Your task to perform on an android device: turn on data saver in the chrome app Image 0: 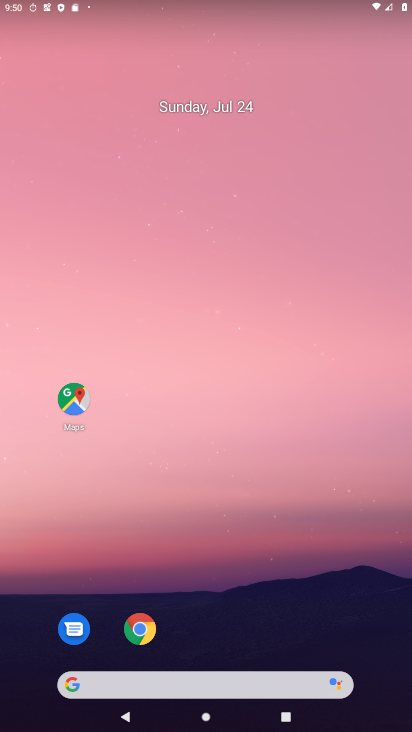
Step 0: drag from (184, 683) to (180, 97)
Your task to perform on an android device: turn on data saver in the chrome app Image 1: 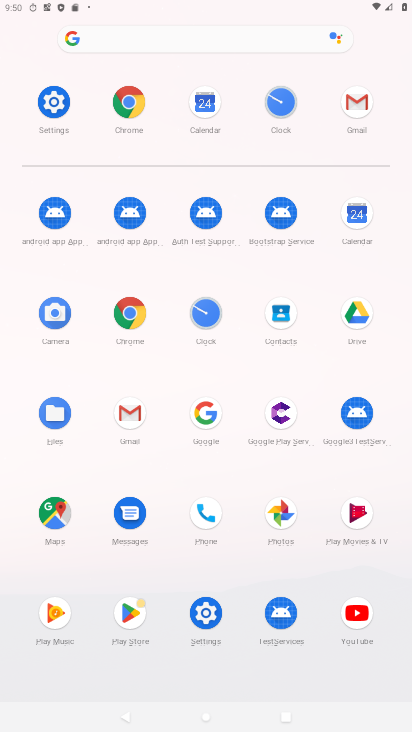
Step 1: click (128, 119)
Your task to perform on an android device: turn on data saver in the chrome app Image 2: 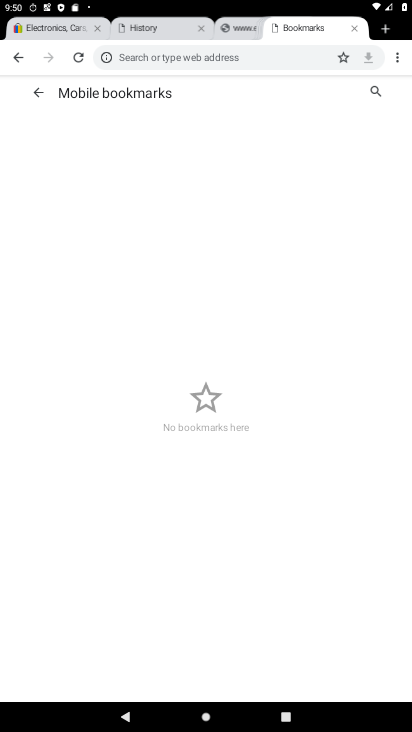
Step 2: click (401, 59)
Your task to perform on an android device: turn on data saver in the chrome app Image 3: 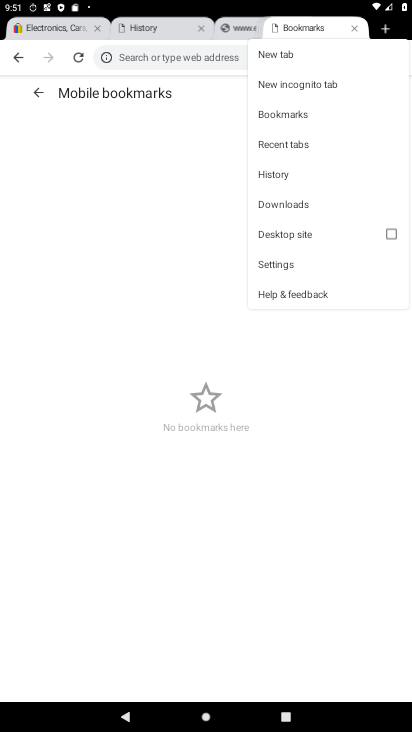
Step 3: click (287, 259)
Your task to perform on an android device: turn on data saver in the chrome app Image 4: 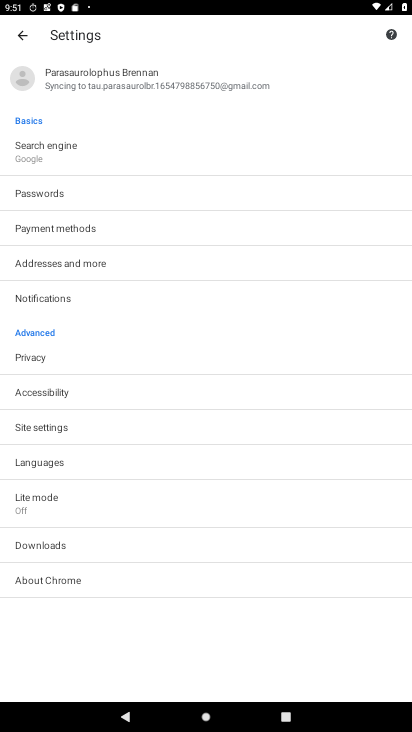
Step 4: click (70, 504)
Your task to perform on an android device: turn on data saver in the chrome app Image 5: 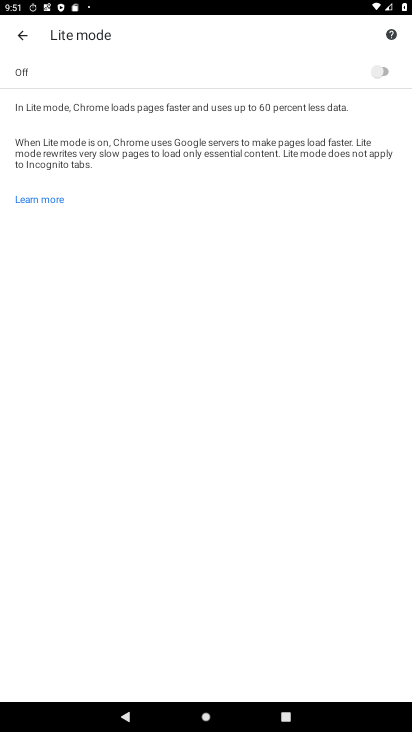
Step 5: click (388, 70)
Your task to perform on an android device: turn on data saver in the chrome app Image 6: 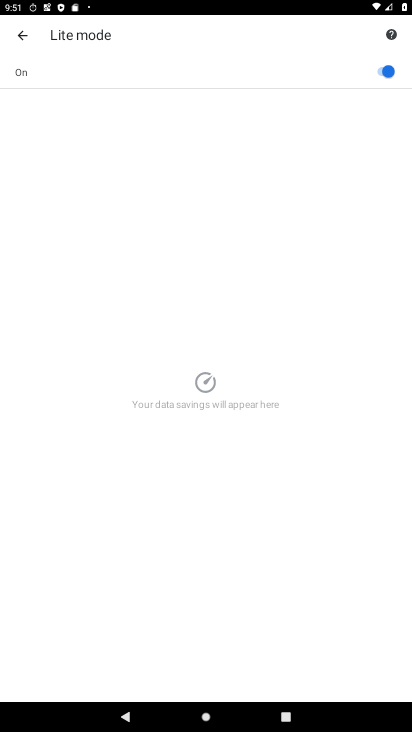
Step 6: task complete